Your task to perform on an android device: Go to sound settings Image 0: 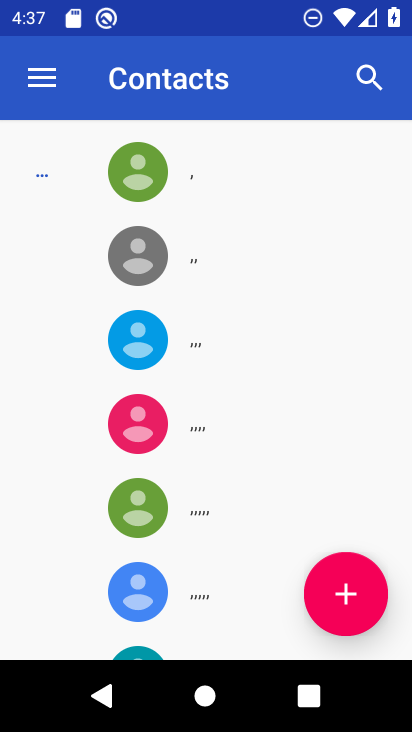
Step 0: press back button
Your task to perform on an android device: Go to sound settings Image 1: 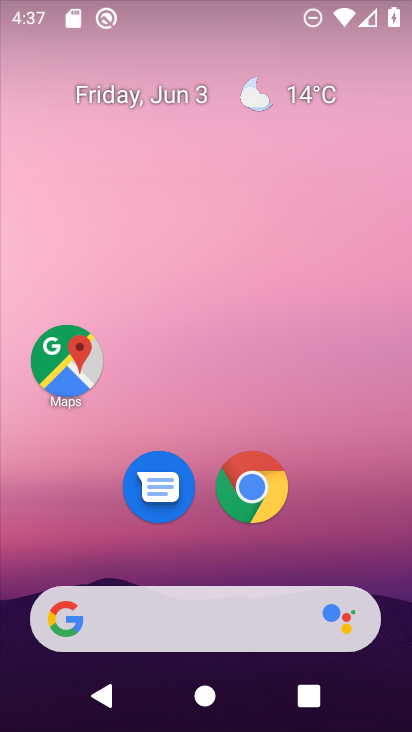
Step 1: drag from (203, 578) to (261, 6)
Your task to perform on an android device: Go to sound settings Image 2: 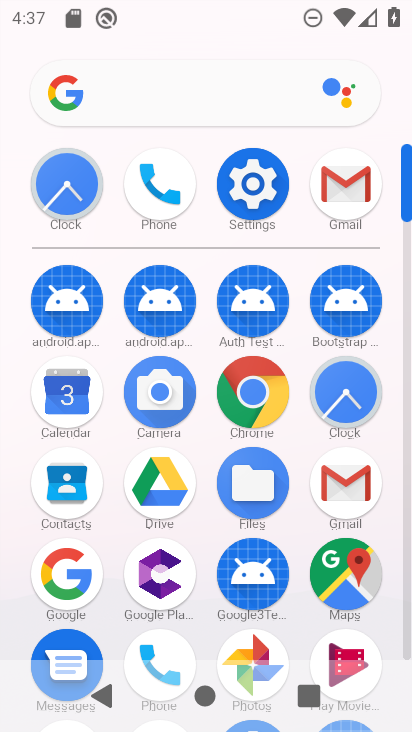
Step 2: click (257, 176)
Your task to perform on an android device: Go to sound settings Image 3: 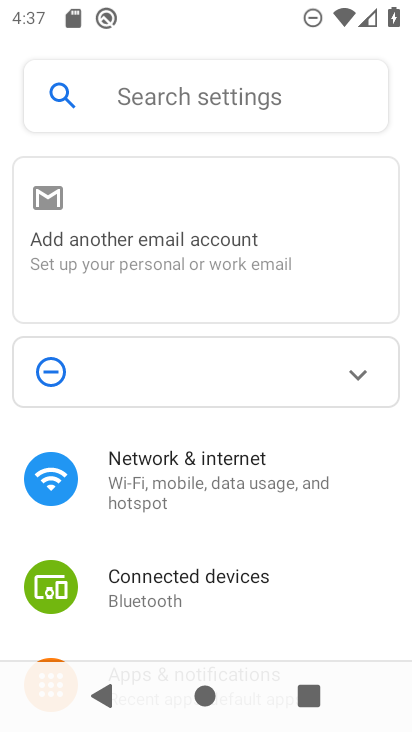
Step 3: drag from (170, 583) to (282, 9)
Your task to perform on an android device: Go to sound settings Image 4: 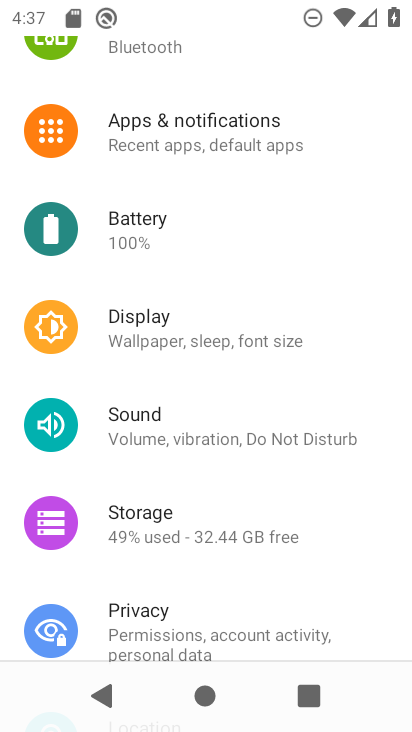
Step 4: click (149, 418)
Your task to perform on an android device: Go to sound settings Image 5: 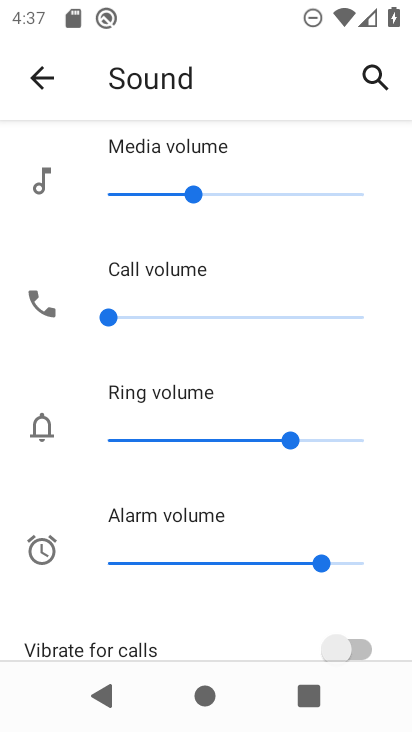
Step 5: task complete